Your task to perform on an android device: turn on data saver in the chrome app Image 0: 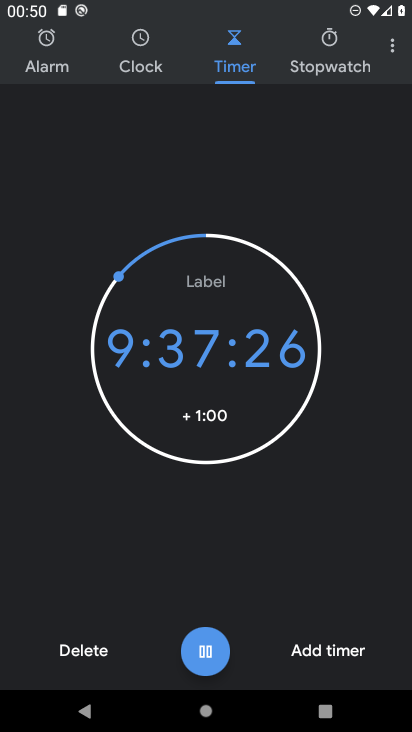
Step 0: press home button
Your task to perform on an android device: turn on data saver in the chrome app Image 1: 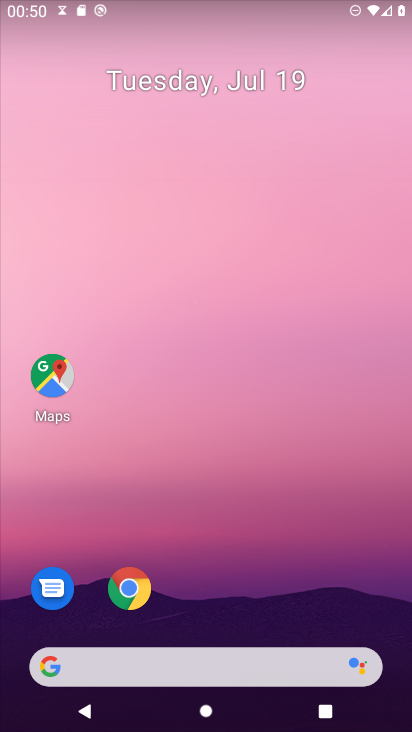
Step 1: press home button
Your task to perform on an android device: turn on data saver in the chrome app Image 2: 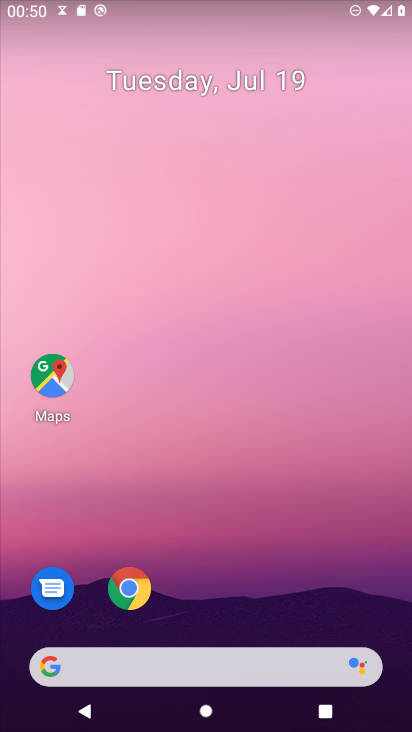
Step 2: click (141, 592)
Your task to perform on an android device: turn on data saver in the chrome app Image 3: 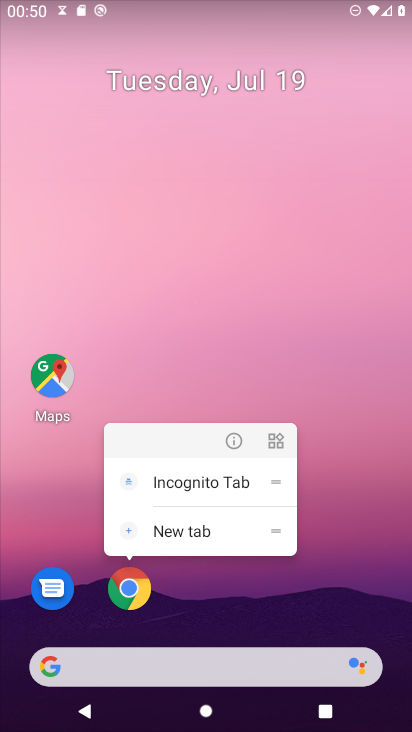
Step 3: click (129, 582)
Your task to perform on an android device: turn on data saver in the chrome app Image 4: 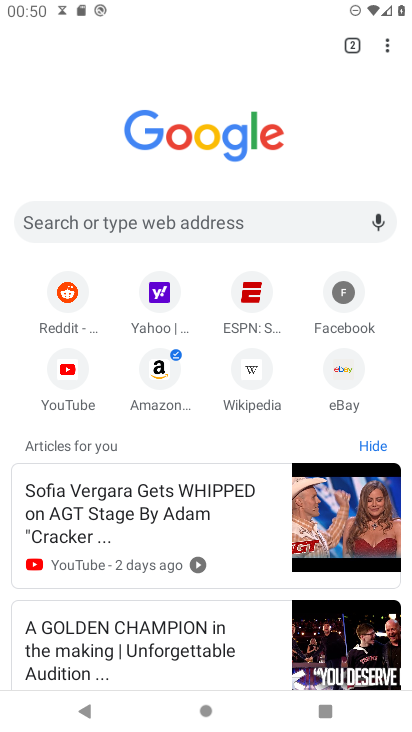
Step 4: drag from (390, 47) to (228, 380)
Your task to perform on an android device: turn on data saver in the chrome app Image 5: 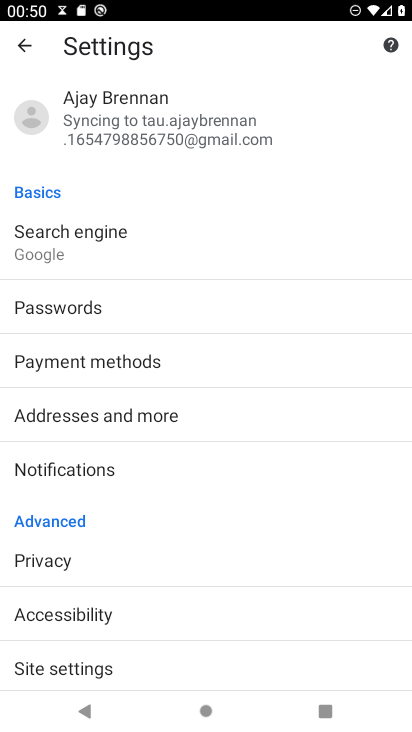
Step 5: drag from (193, 527) to (198, 131)
Your task to perform on an android device: turn on data saver in the chrome app Image 6: 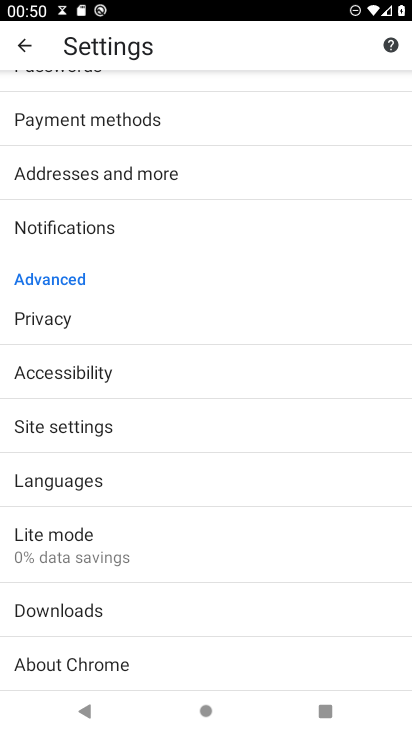
Step 6: click (60, 539)
Your task to perform on an android device: turn on data saver in the chrome app Image 7: 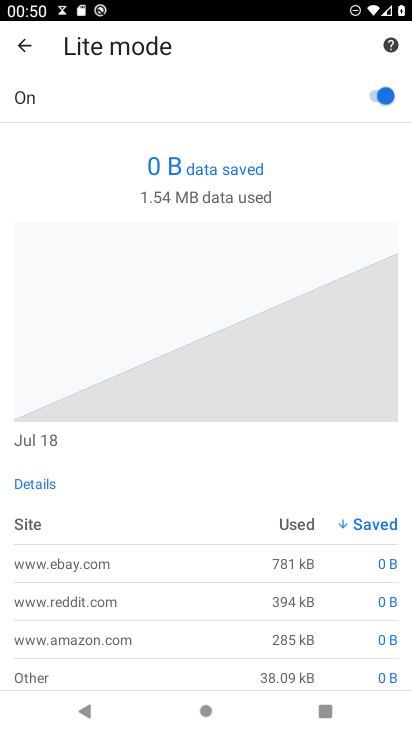
Step 7: task complete